Your task to perform on an android device: check battery use Image 0: 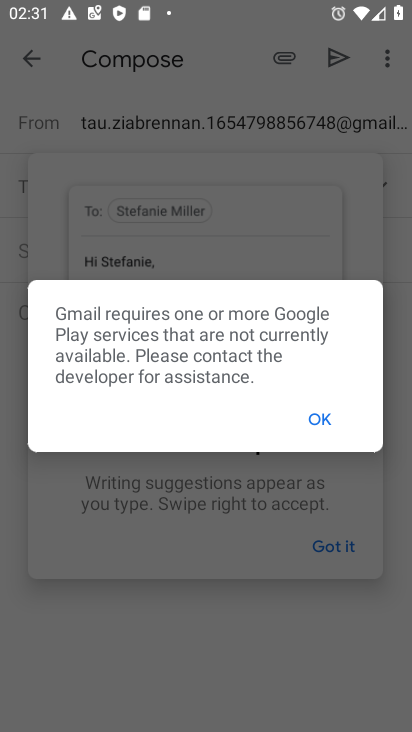
Step 0: press home button
Your task to perform on an android device: check battery use Image 1: 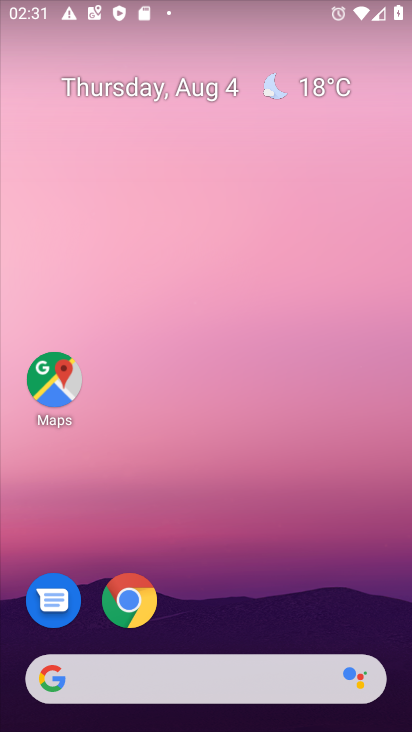
Step 1: drag from (143, 656) to (270, 139)
Your task to perform on an android device: check battery use Image 2: 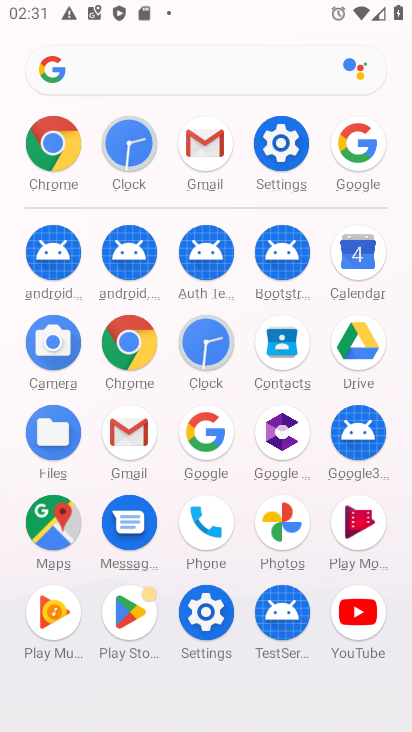
Step 2: click (274, 144)
Your task to perform on an android device: check battery use Image 3: 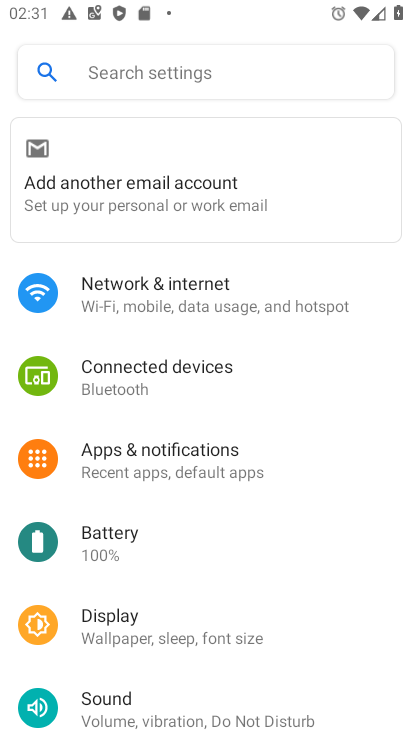
Step 3: click (114, 544)
Your task to perform on an android device: check battery use Image 4: 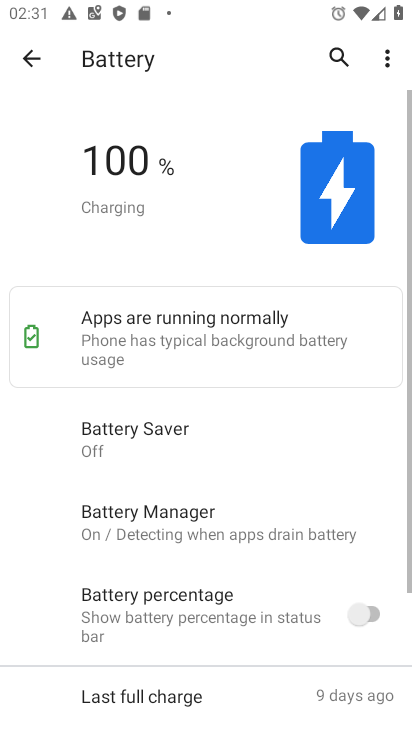
Step 4: click (388, 61)
Your task to perform on an android device: check battery use Image 5: 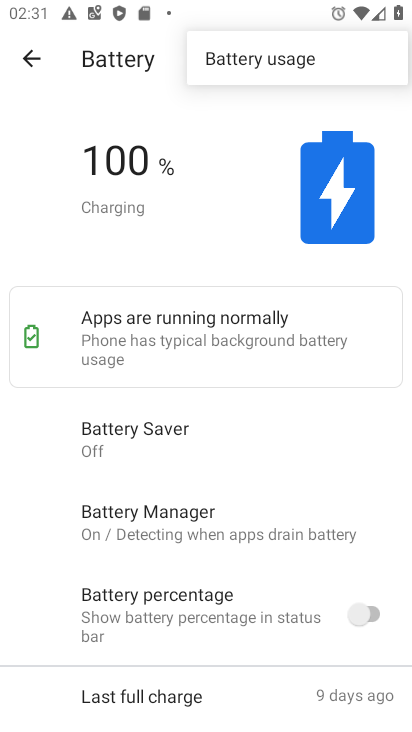
Step 5: click (272, 58)
Your task to perform on an android device: check battery use Image 6: 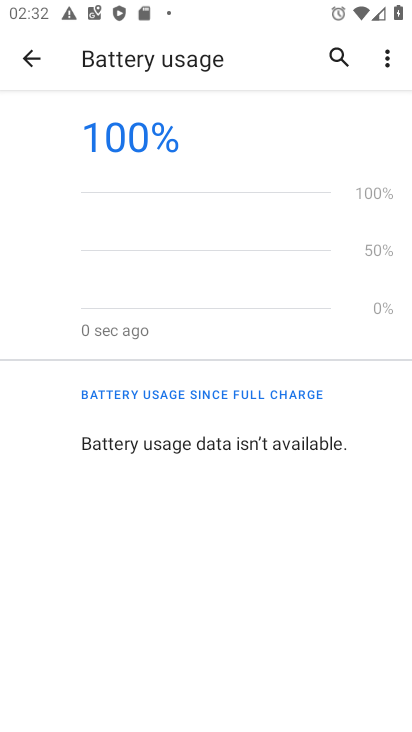
Step 6: task complete